Your task to perform on an android device: Open the phone app and click the voicemail tab. Image 0: 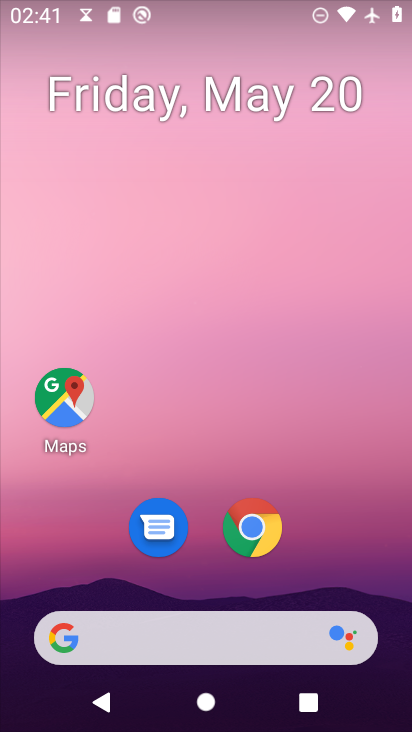
Step 0: press home button
Your task to perform on an android device: Open the phone app and click the voicemail tab. Image 1: 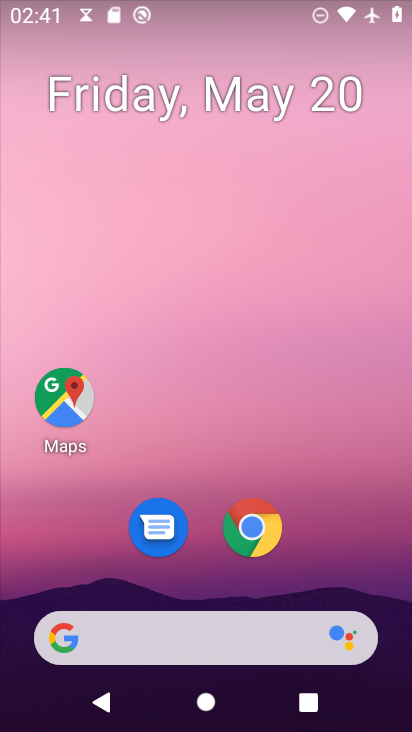
Step 1: drag from (183, 632) to (272, 215)
Your task to perform on an android device: Open the phone app and click the voicemail tab. Image 2: 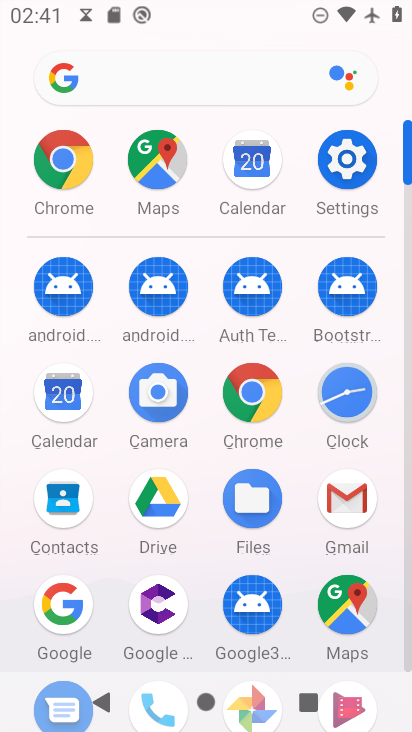
Step 2: drag from (111, 638) to (220, 267)
Your task to perform on an android device: Open the phone app and click the voicemail tab. Image 3: 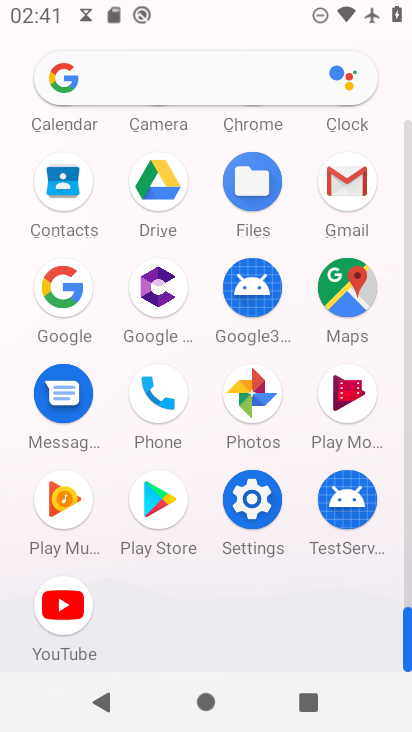
Step 3: click (163, 399)
Your task to perform on an android device: Open the phone app and click the voicemail tab. Image 4: 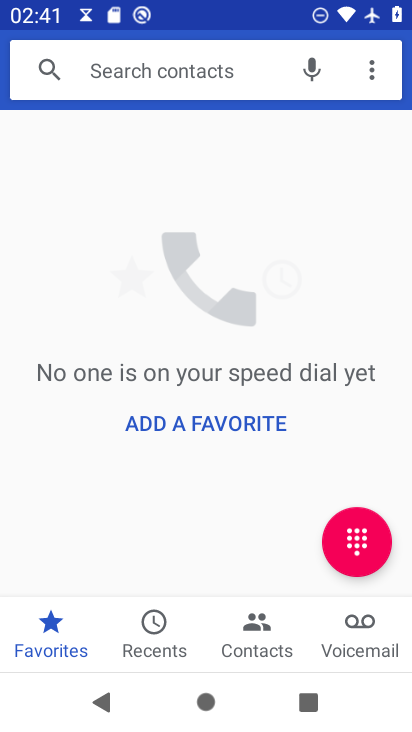
Step 4: click (353, 630)
Your task to perform on an android device: Open the phone app and click the voicemail tab. Image 5: 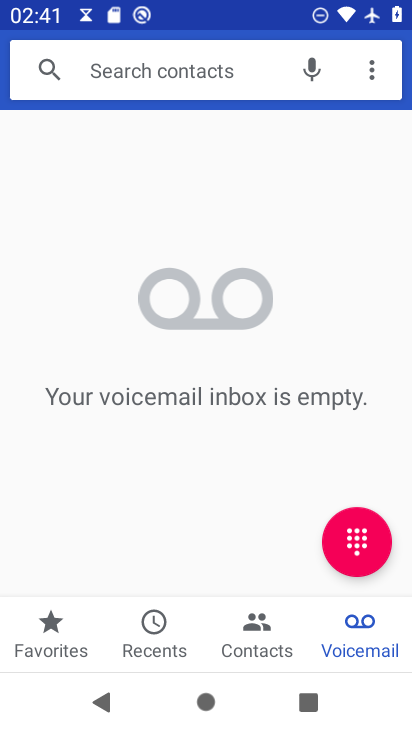
Step 5: task complete